Your task to perform on an android device: turn off location history Image 0: 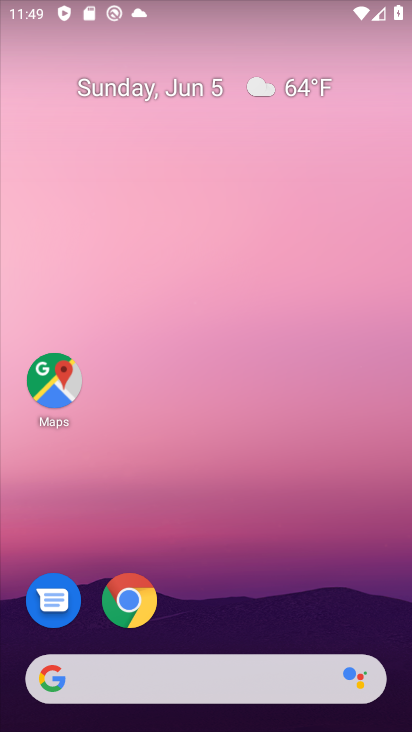
Step 0: drag from (253, 432) to (213, 168)
Your task to perform on an android device: turn off location history Image 1: 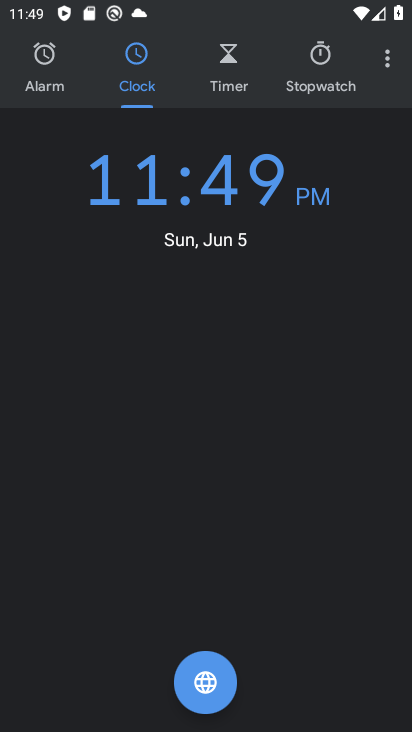
Step 1: press back button
Your task to perform on an android device: turn off location history Image 2: 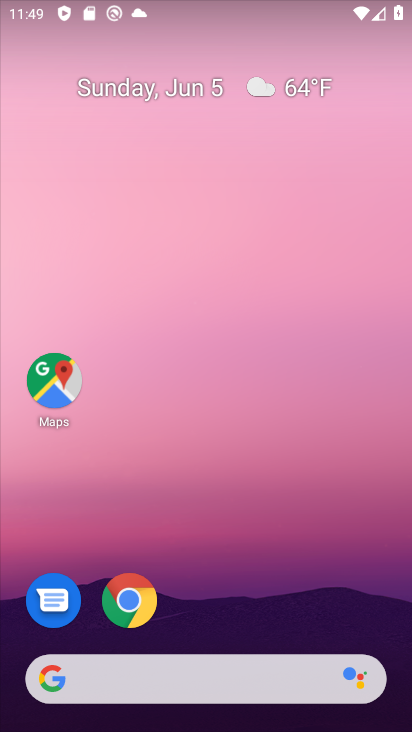
Step 2: drag from (273, 596) to (210, 131)
Your task to perform on an android device: turn off location history Image 3: 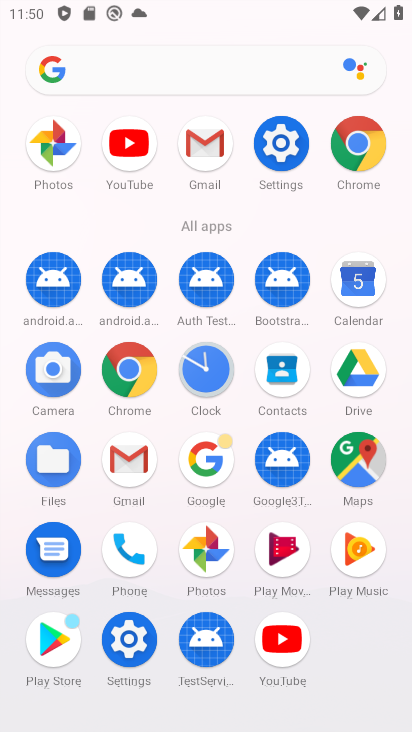
Step 3: click (277, 128)
Your task to perform on an android device: turn off location history Image 4: 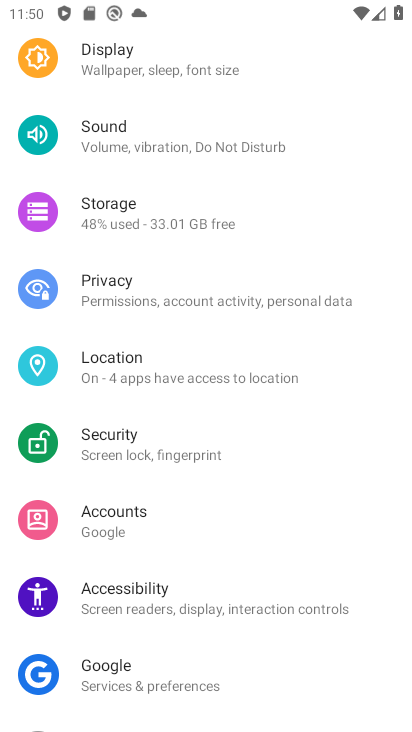
Step 4: click (146, 352)
Your task to perform on an android device: turn off location history Image 5: 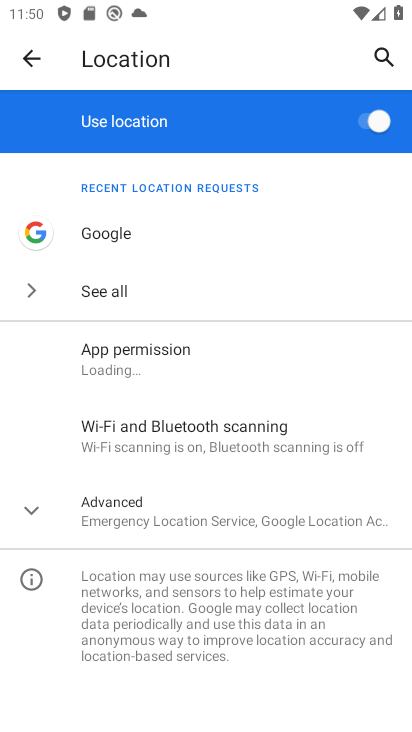
Step 5: click (133, 494)
Your task to perform on an android device: turn off location history Image 6: 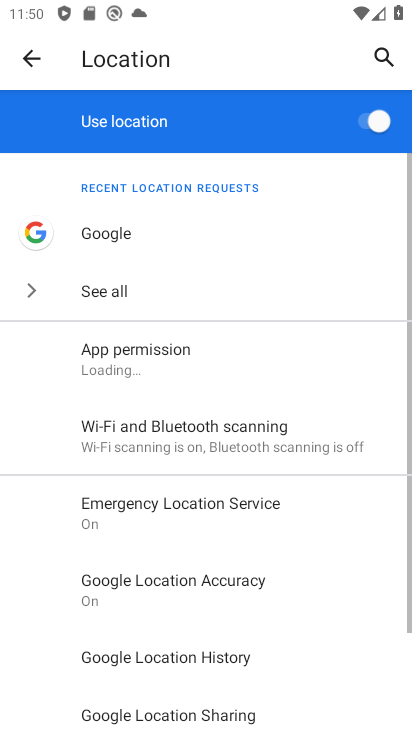
Step 6: drag from (217, 553) to (175, 260)
Your task to perform on an android device: turn off location history Image 7: 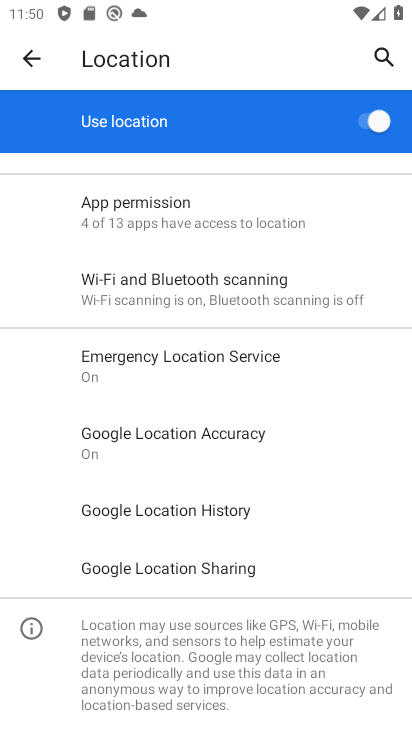
Step 7: click (196, 503)
Your task to perform on an android device: turn off location history Image 8: 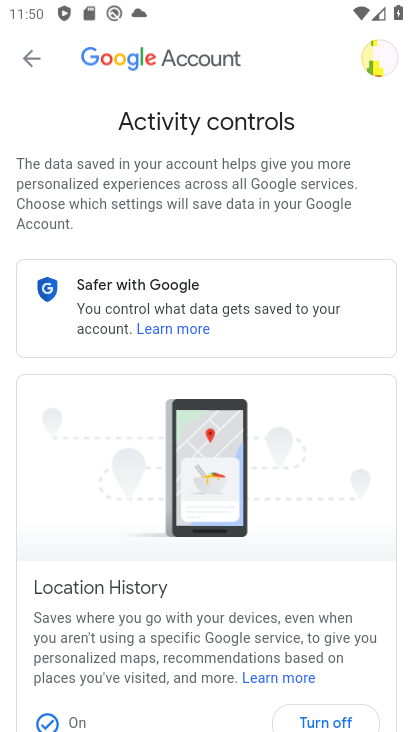
Step 8: task complete